Your task to perform on an android device: uninstall "Upside-Cash back on gas & food" Image 0: 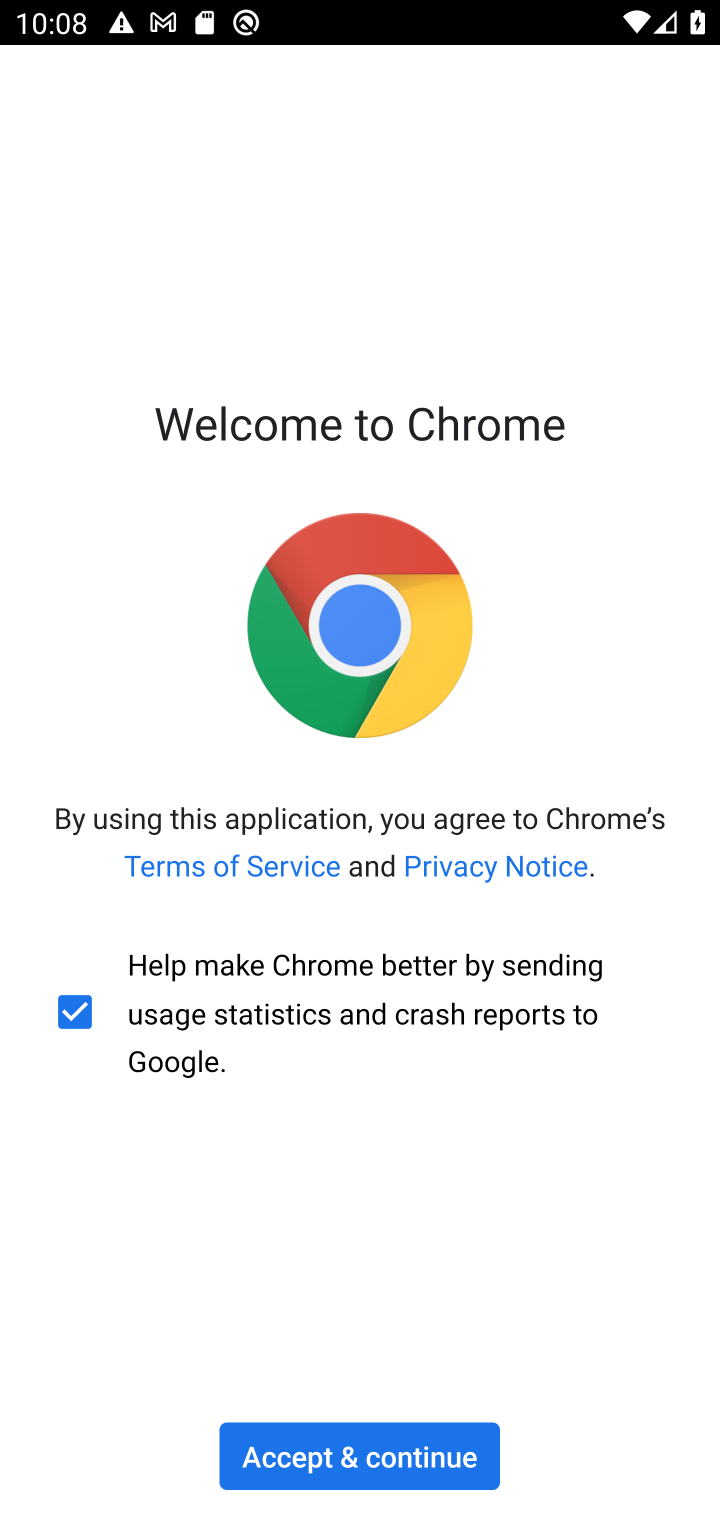
Step 0: press home button
Your task to perform on an android device: uninstall "Upside-Cash back on gas & food" Image 1: 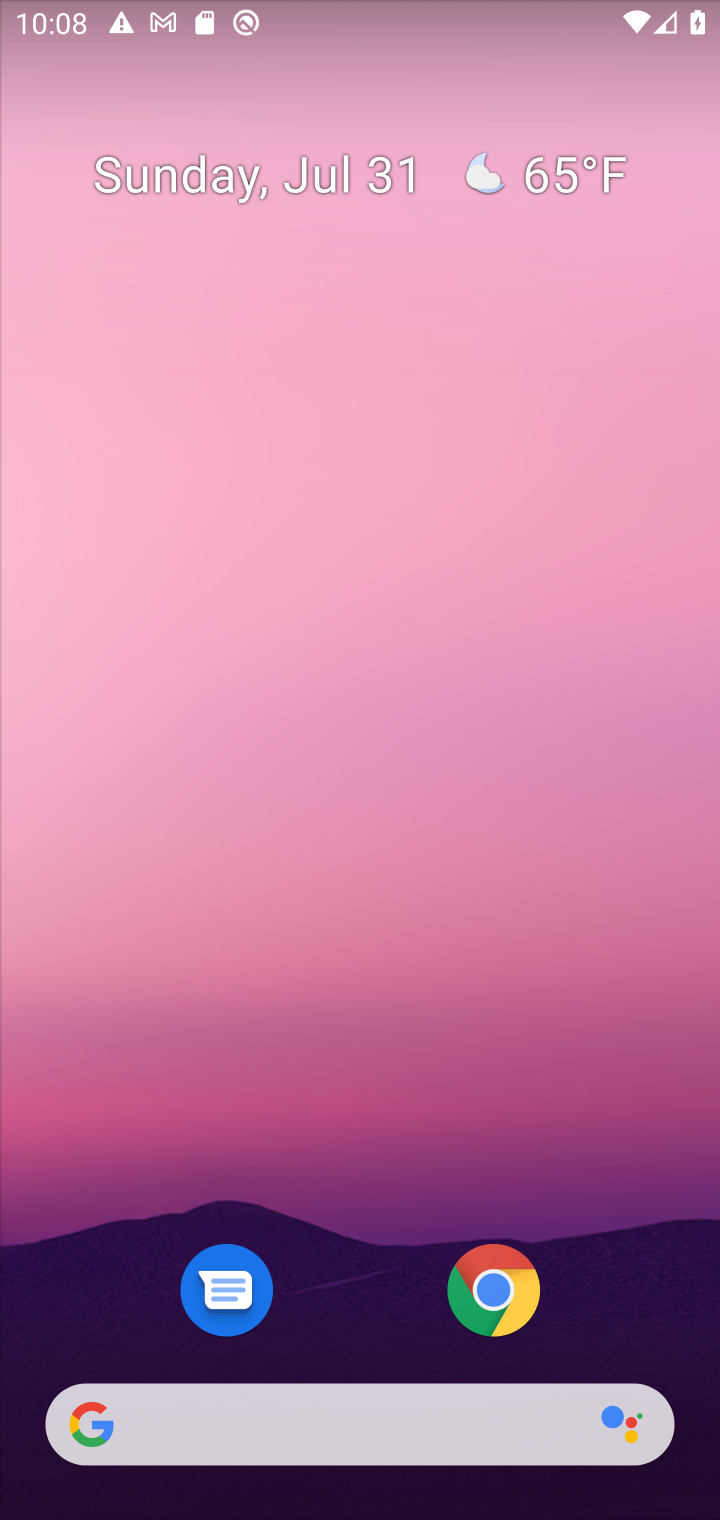
Step 1: drag from (646, 1338) to (594, 163)
Your task to perform on an android device: uninstall "Upside-Cash back on gas & food" Image 2: 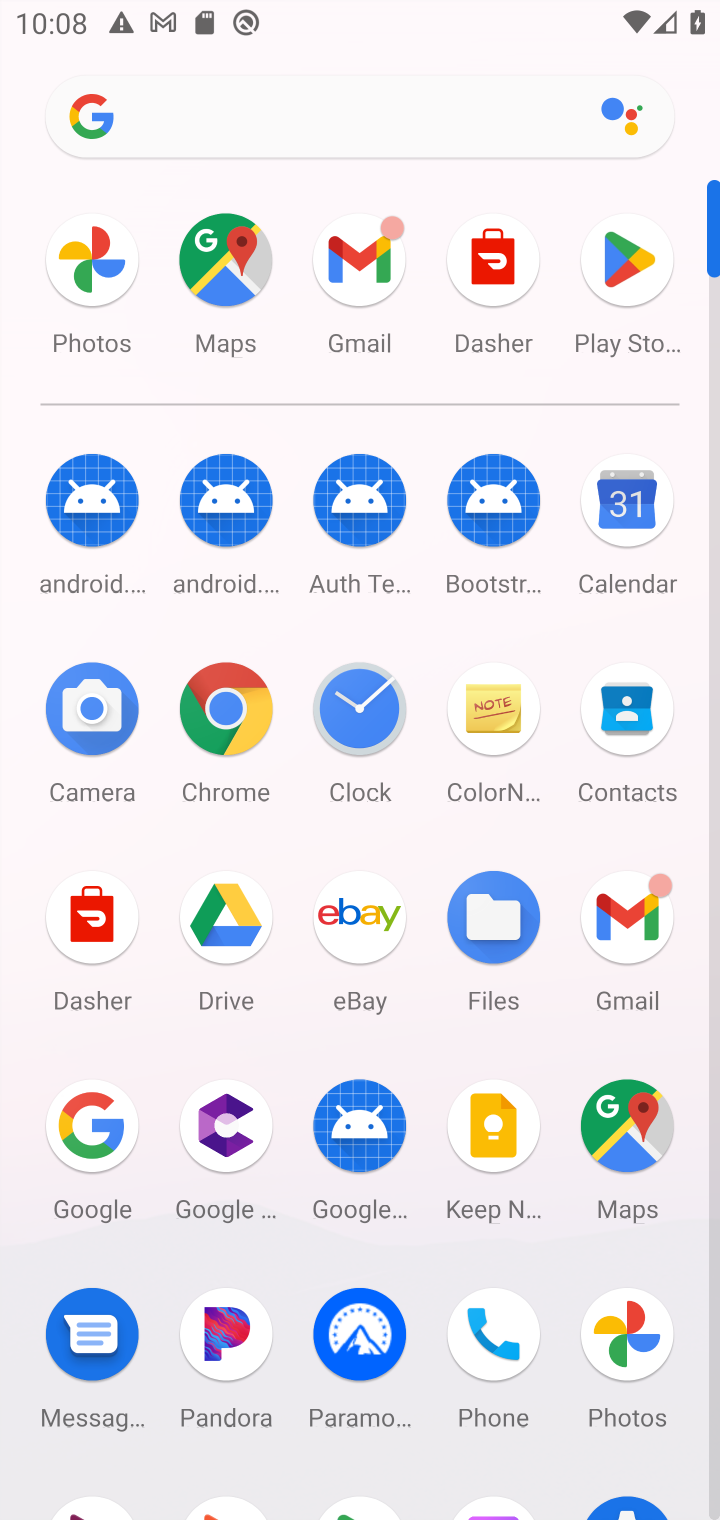
Step 2: click (634, 288)
Your task to perform on an android device: uninstall "Upside-Cash back on gas & food" Image 3: 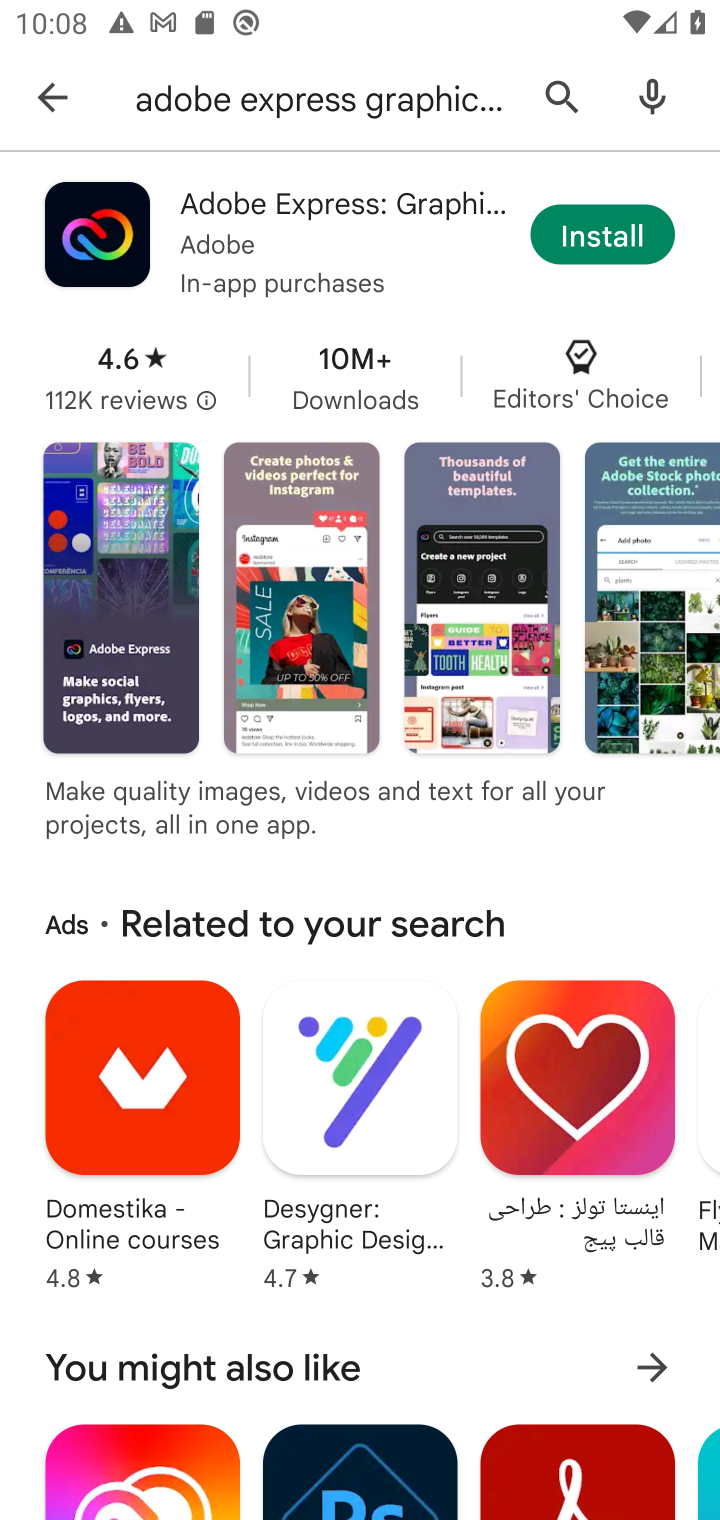
Step 3: click (551, 89)
Your task to perform on an android device: uninstall "Upside-Cash back on gas & food" Image 4: 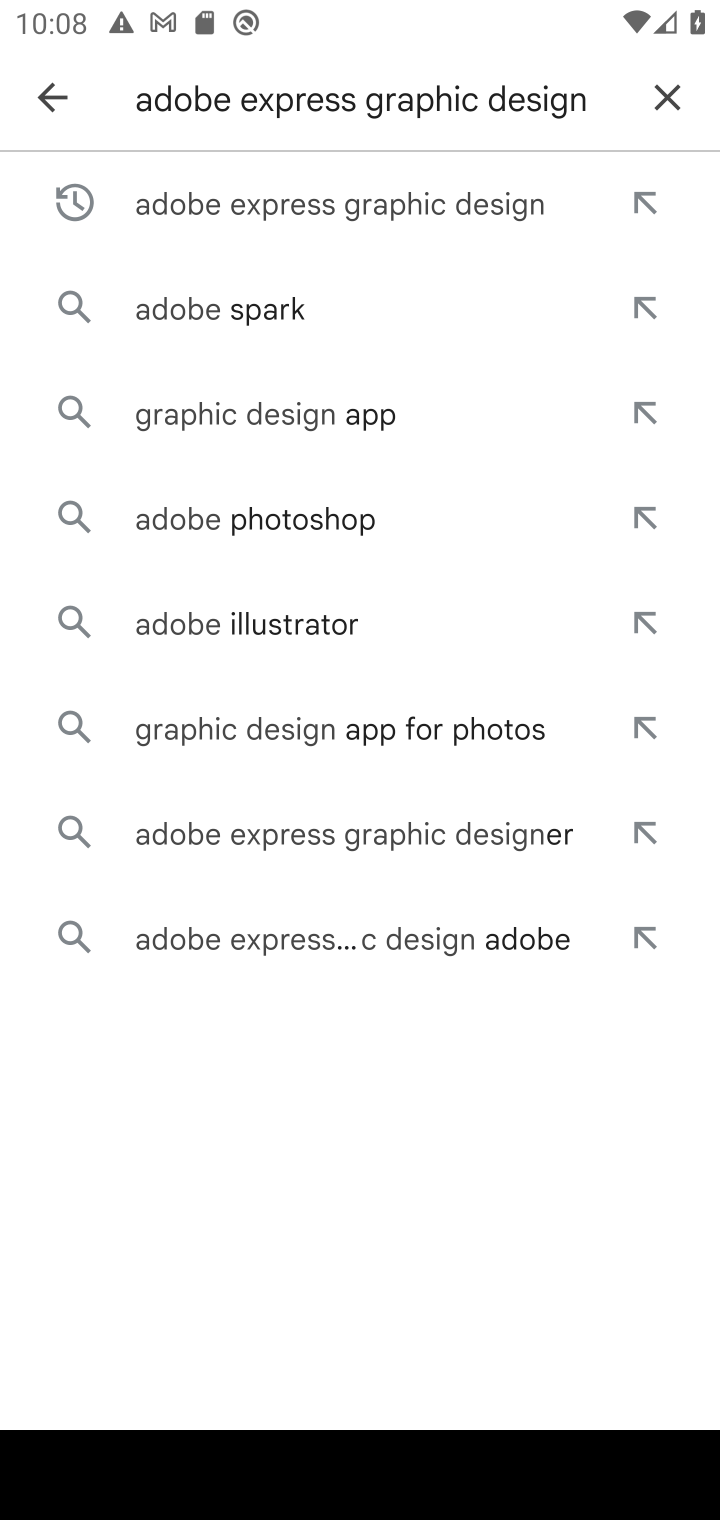
Step 4: click (664, 97)
Your task to perform on an android device: uninstall "Upside-Cash back on gas & food" Image 5: 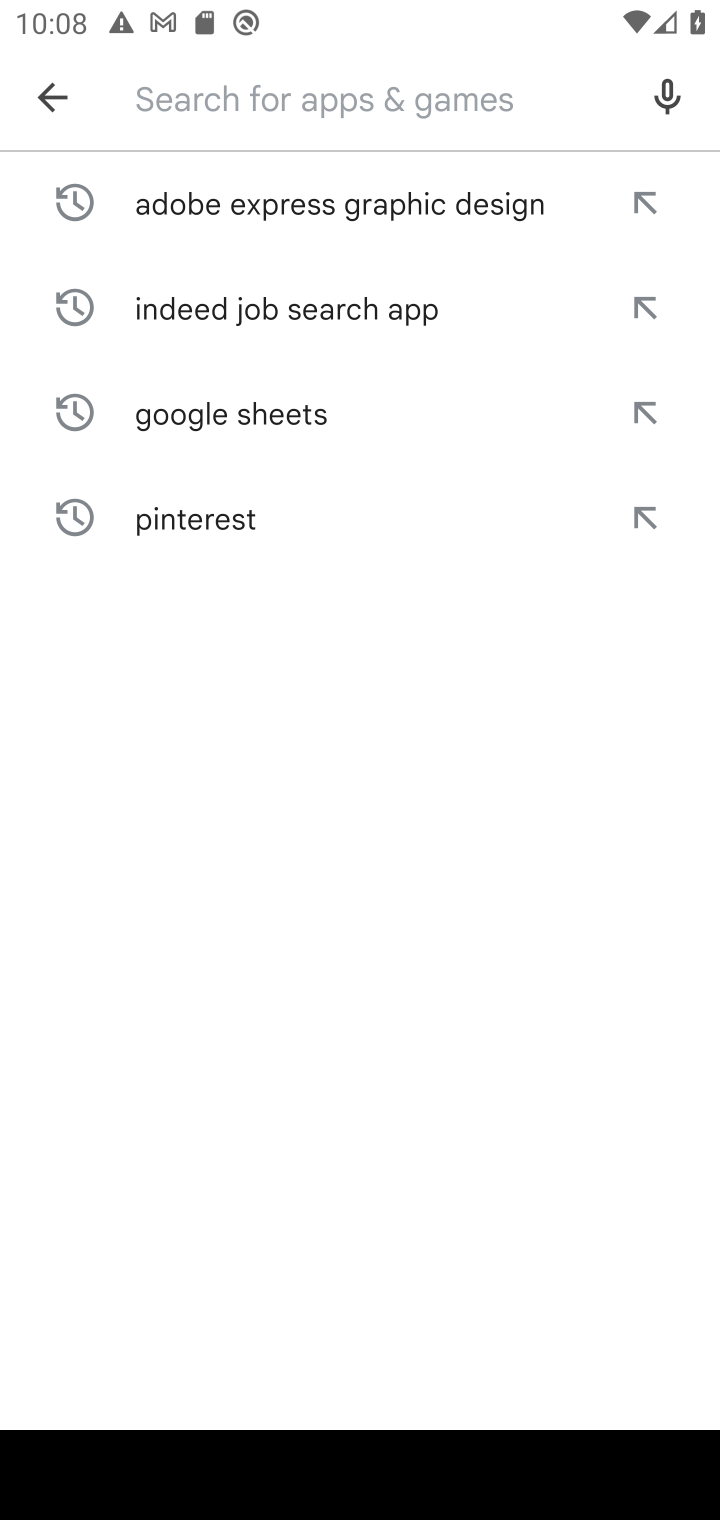
Step 5: click (465, 89)
Your task to perform on an android device: uninstall "Upside-Cash back on gas & food" Image 6: 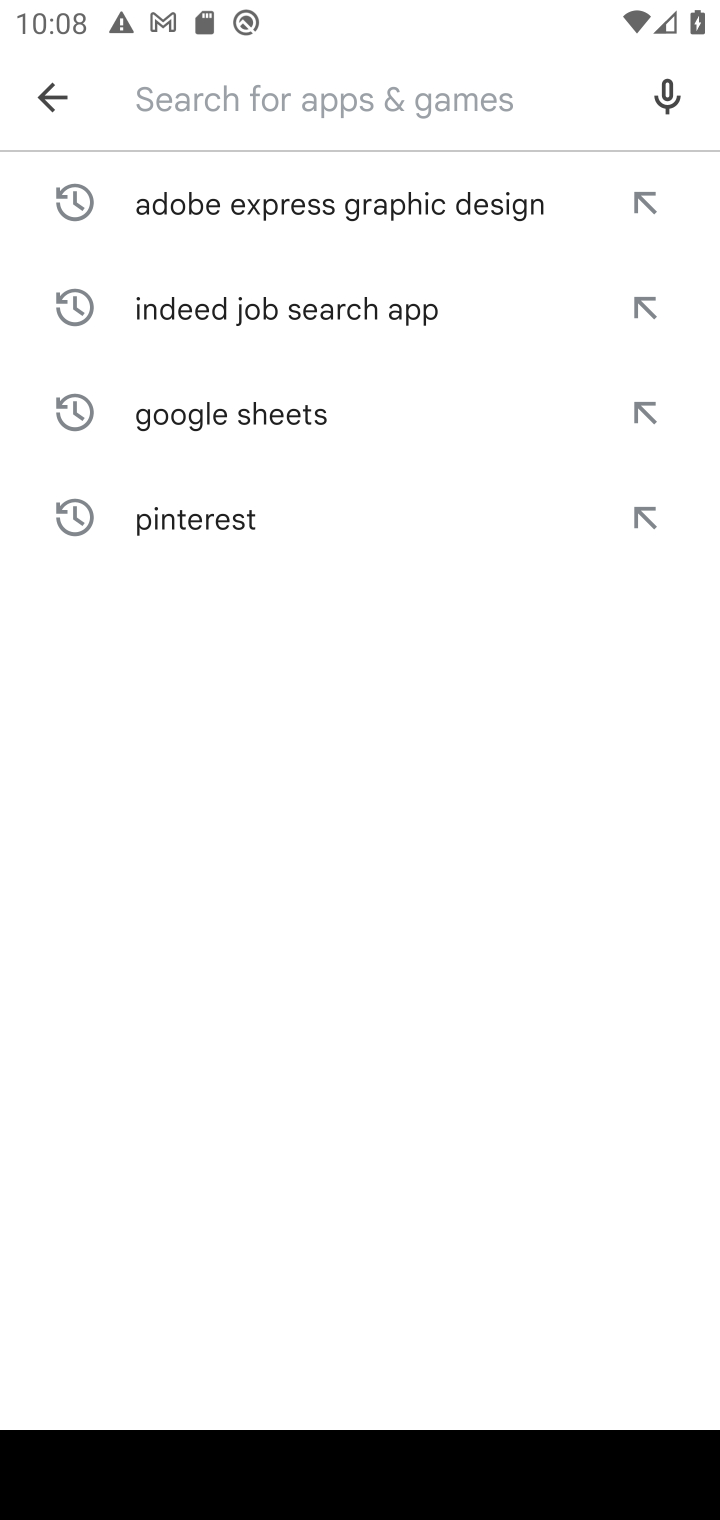
Step 6: type "upside cash back on gas food"
Your task to perform on an android device: uninstall "Upside-Cash back on gas & food" Image 7: 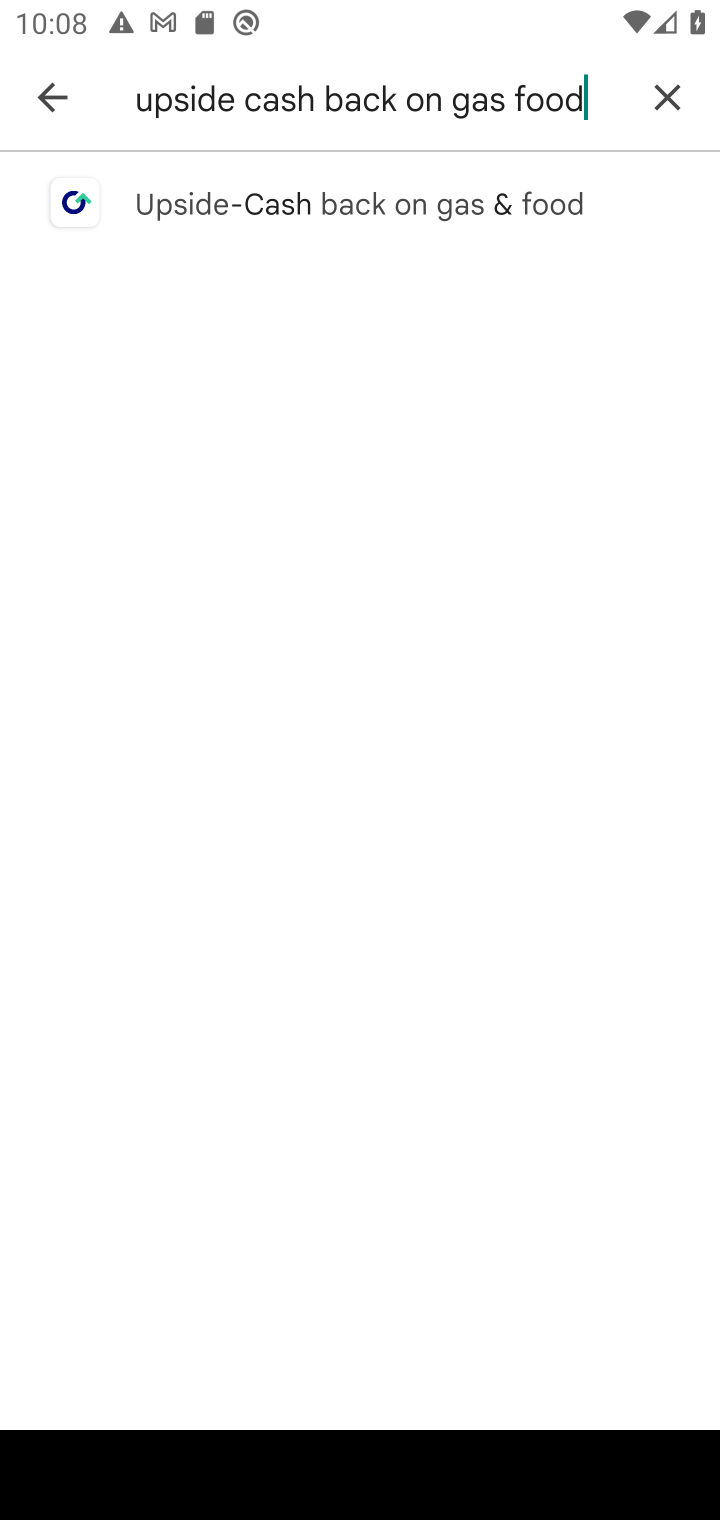
Step 7: click (439, 201)
Your task to perform on an android device: uninstall "Upside-Cash back on gas & food" Image 8: 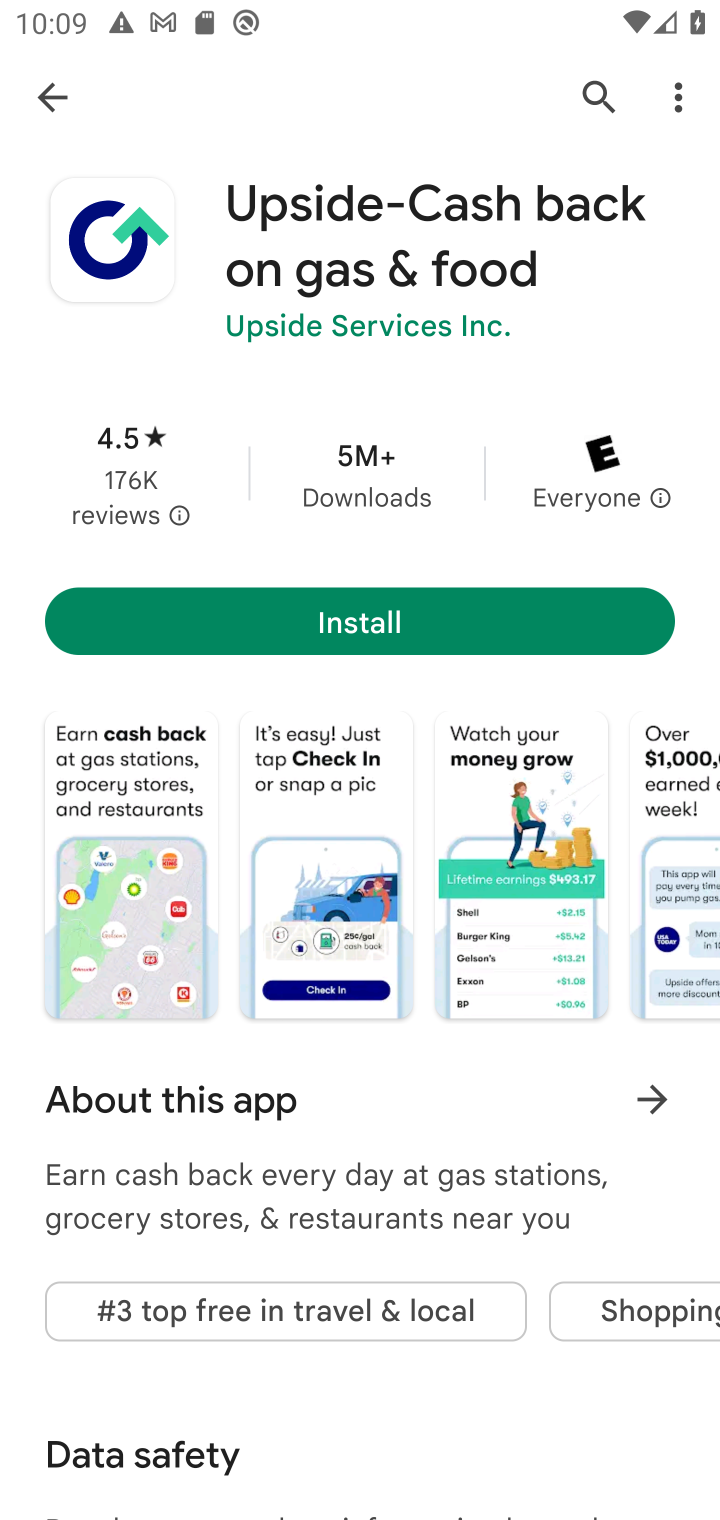
Step 8: task complete